Your task to perform on an android device: Search for vegetarian restaurants on Maps Image 0: 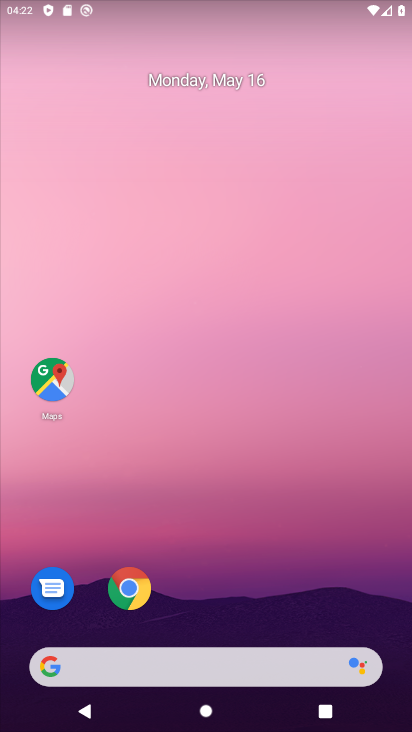
Step 0: drag from (231, 552) to (203, 13)
Your task to perform on an android device: Search for vegetarian restaurants on Maps Image 1: 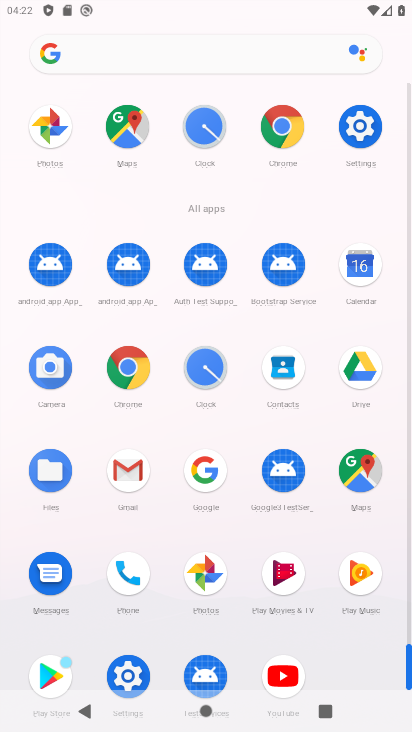
Step 1: drag from (0, 574) to (0, 264)
Your task to perform on an android device: Search for vegetarian restaurants on Maps Image 2: 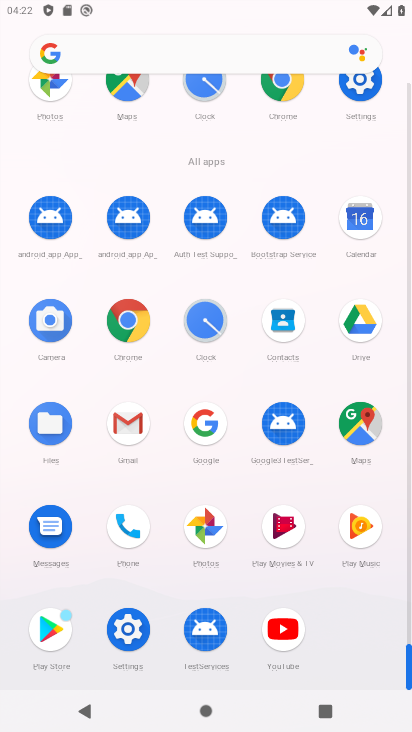
Step 2: click (362, 427)
Your task to perform on an android device: Search for vegetarian restaurants on Maps Image 3: 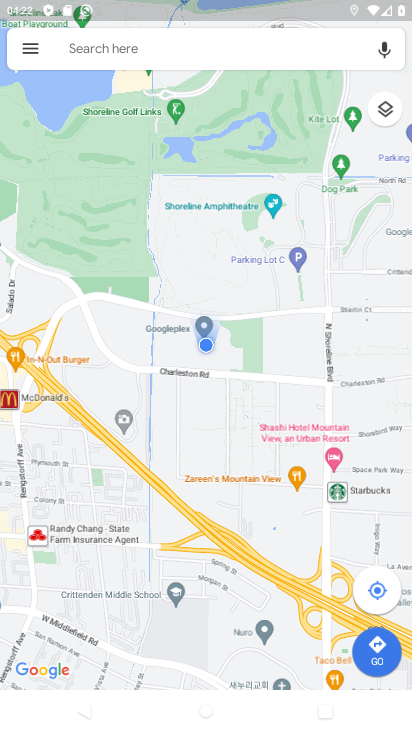
Step 3: click (181, 53)
Your task to perform on an android device: Search for vegetarian restaurants on Maps Image 4: 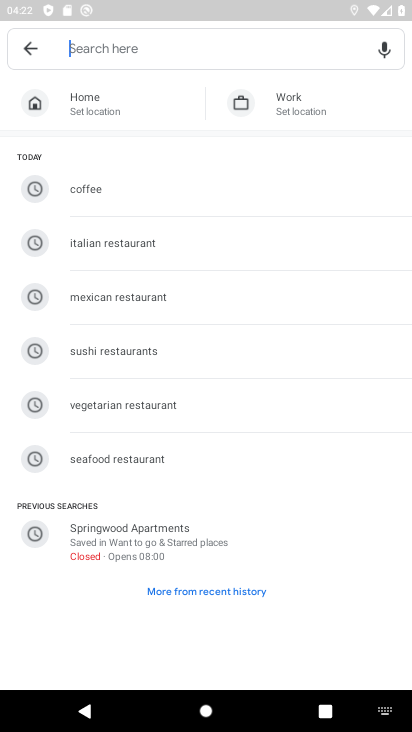
Step 4: click (163, 386)
Your task to perform on an android device: Search for vegetarian restaurants on Maps Image 5: 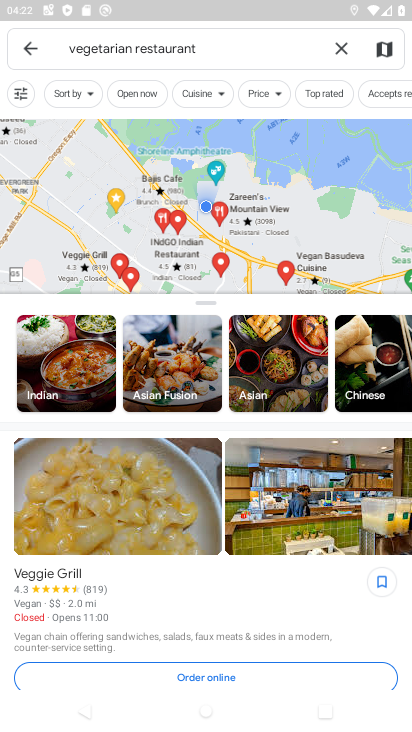
Step 5: task complete